Your task to perform on an android device: move a message to another label in the gmail app Image 0: 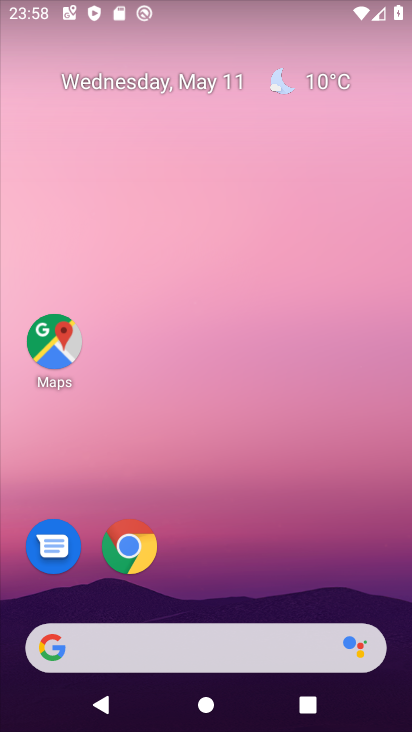
Step 0: drag from (143, 564) to (208, 254)
Your task to perform on an android device: move a message to another label in the gmail app Image 1: 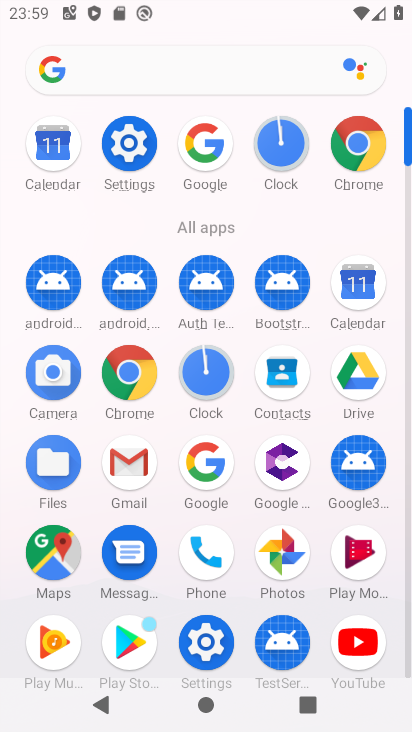
Step 1: click (127, 473)
Your task to perform on an android device: move a message to another label in the gmail app Image 2: 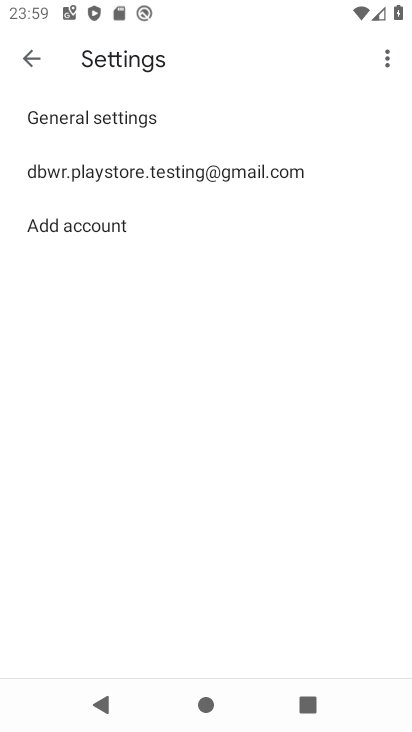
Step 2: click (186, 176)
Your task to perform on an android device: move a message to another label in the gmail app Image 3: 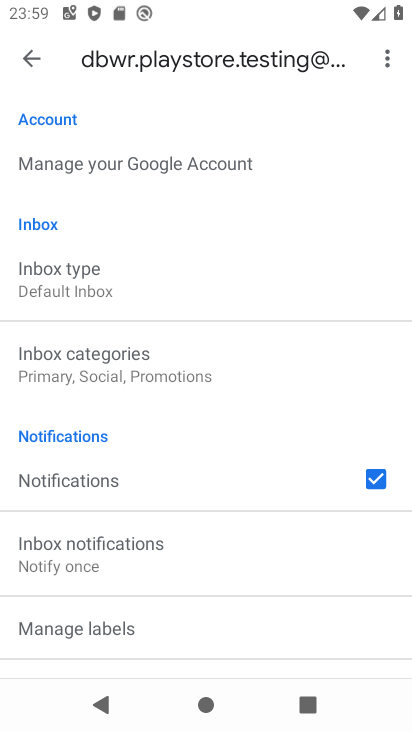
Step 3: click (27, 60)
Your task to perform on an android device: move a message to another label in the gmail app Image 4: 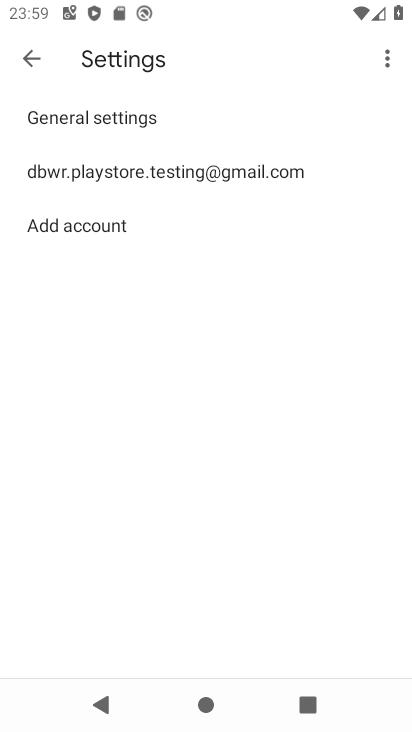
Step 4: click (27, 60)
Your task to perform on an android device: move a message to another label in the gmail app Image 5: 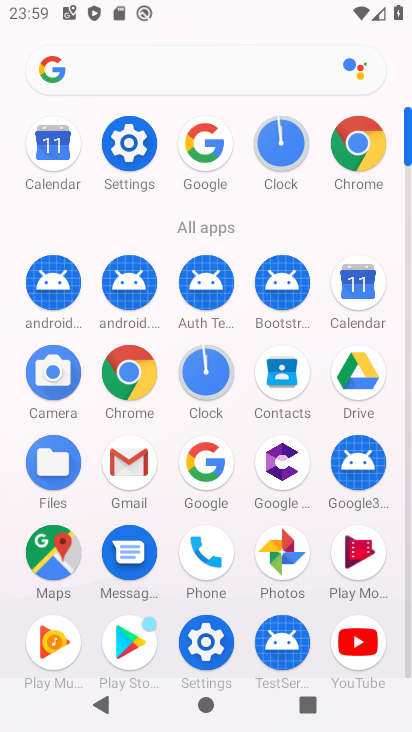
Step 5: click (125, 468)
Your task to perform on an android device: move a message to another label in the gmail app Image 6: 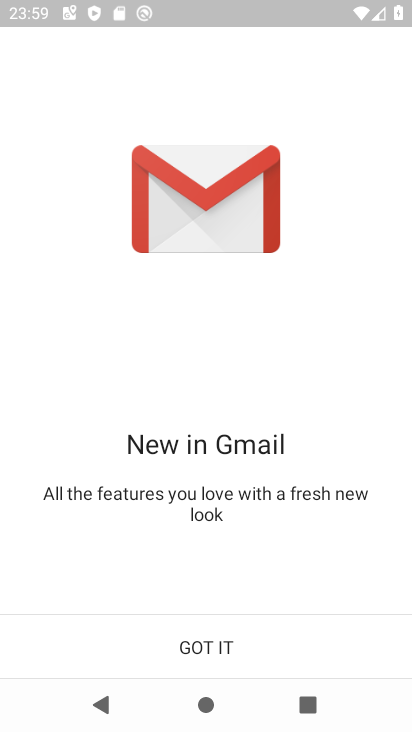
Step 6: click (188, 637)
Your task to perform on an android device: move a message to another label in the gmail app Image 7: 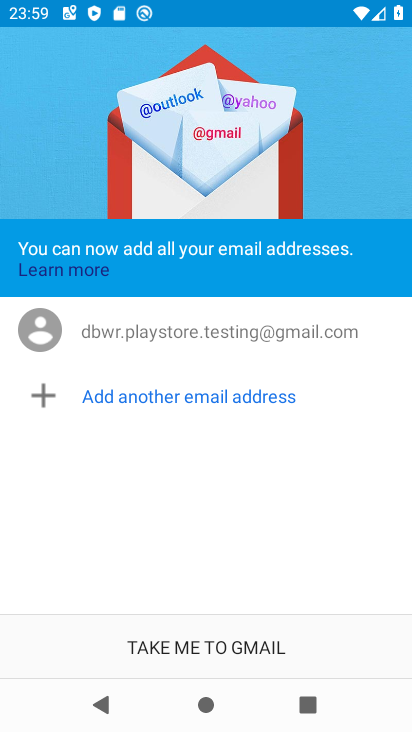
Step 7: click (209, 640)
Your task to perform on an android device: move a message to another label in the gmail app Image 8: 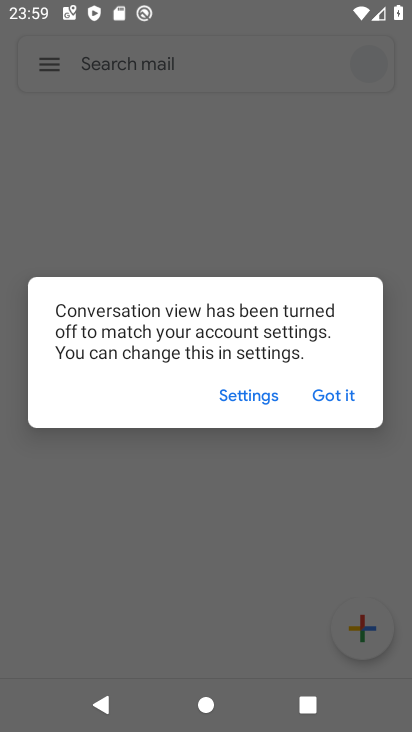
Step 8: click (342, 388)
Your task to perform on an android device: move a message to another label in the gmail app Image 9: 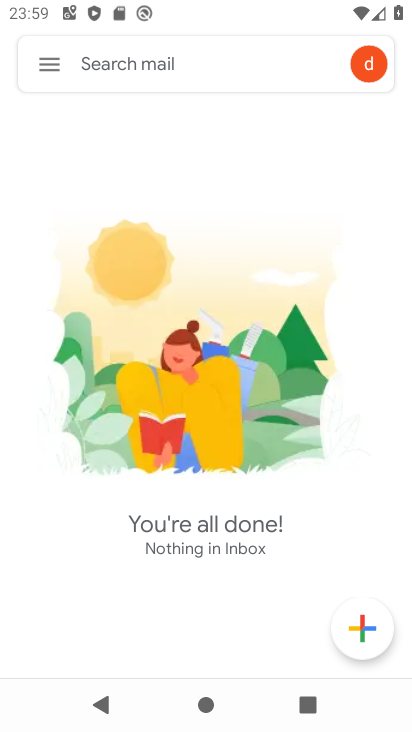
Step 9: click (47, 59)
Your task to perform on an android device: move a message to another label in the gmail app Image 10: 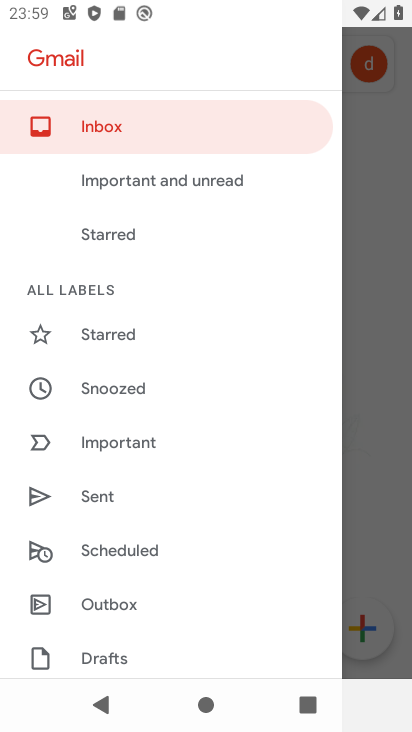
Step 10: drag from (174, 548) to (199, 260)
Your task to perform on an android device: move a message to another label in the gmail app Image 11: 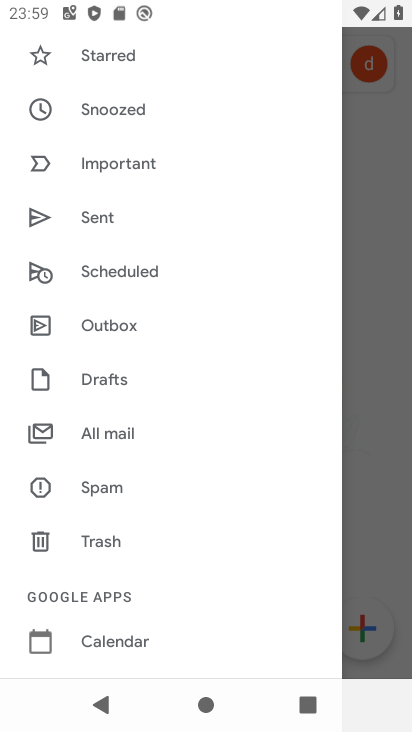
Step 11: click (111, 434)
Your task to perform on an android device: move a message to another label in the gmail app Image 12: 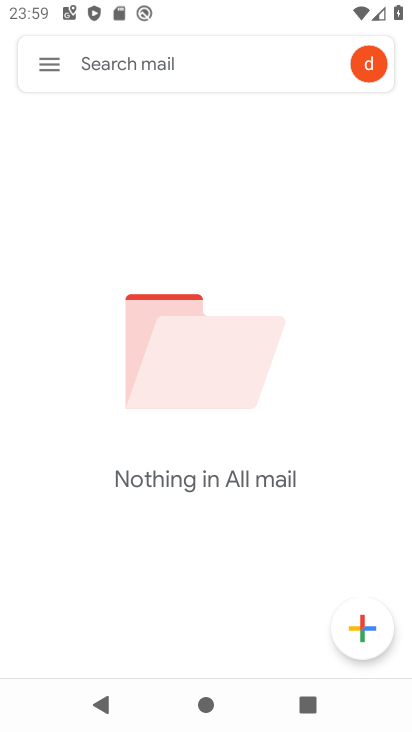
Step 12: task complete